Your task to perform on an android device: toggle data saver in the chrome app Image 0: 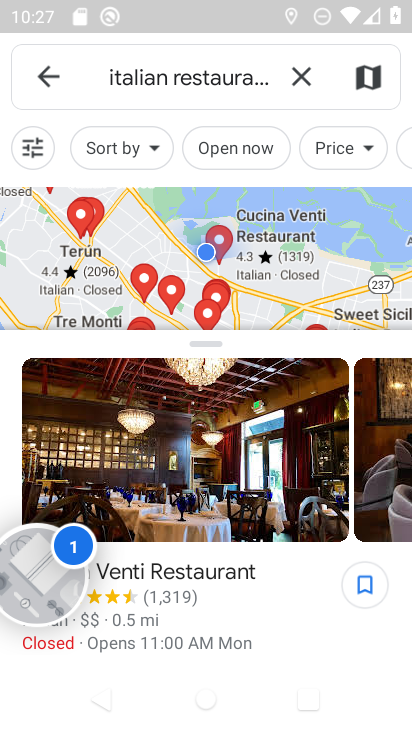
Step 0: press home button
Your task to perform on an android device: toggle data saver in the chrome app Image 1: 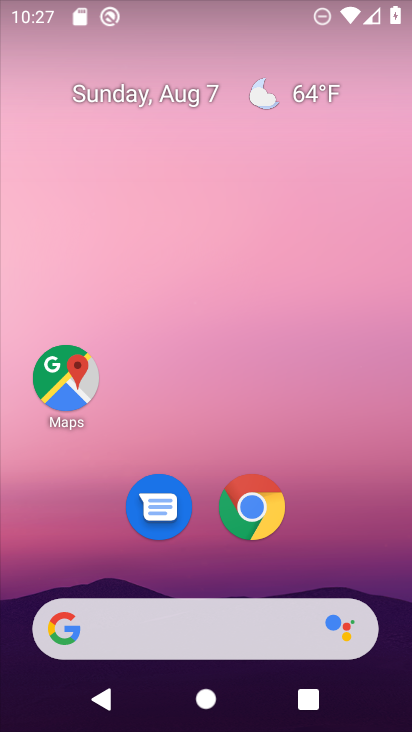
Step 1: drag from (358, 509) to (314, 14)
Your task to perform on an android device: toggle data saver in the chrome app Image 2: 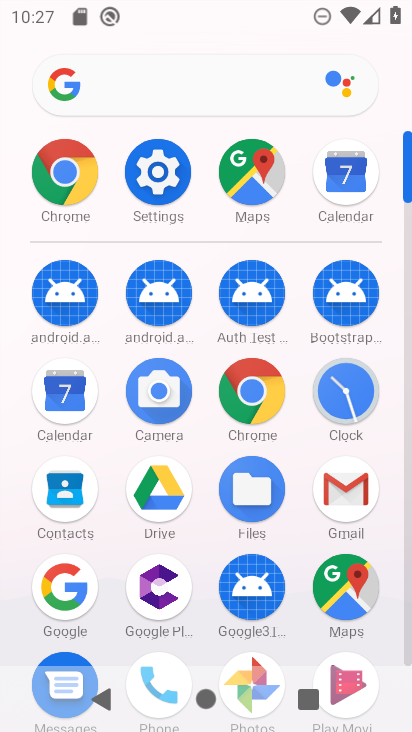
Step 2: click (250, 390)
Your task to perform on an android device: toggle data saver in the chrome app Image 3: 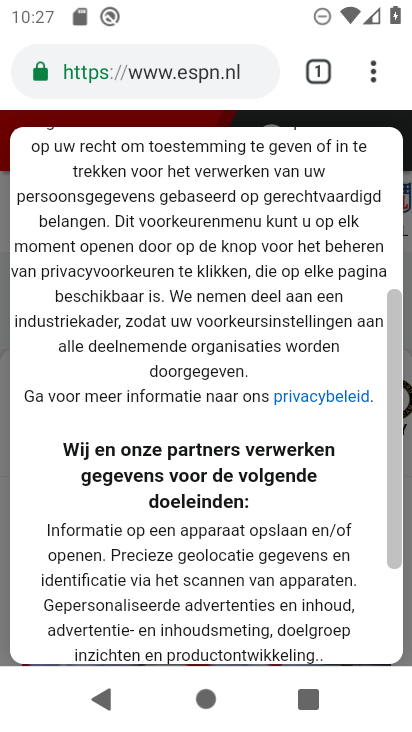
Step 3: drag from (379, 63) to (258, 496)
Your task to perform on an android device: toggle data saver in the chrome app Image 4: 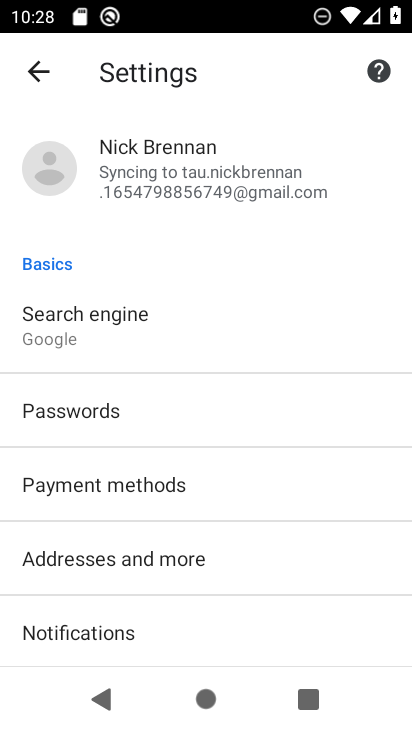
Step 4: drag from (244, 505) to (286, 82)
Your task to perform on an android device: toggle data saver in the chrome app Image 5: 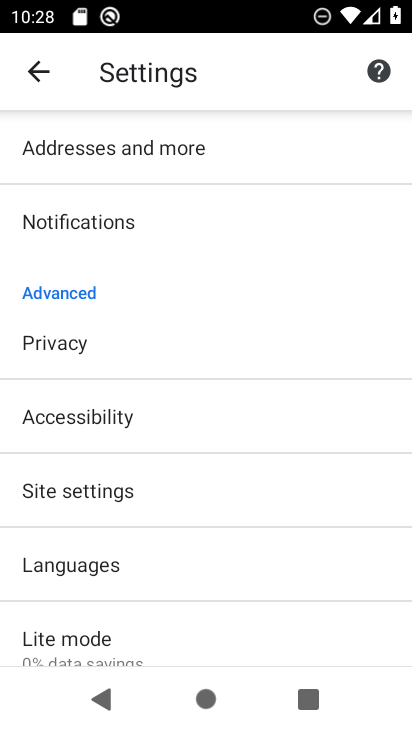
Step 5: drag from (185, 560) to (294, 123)
Your task to perform on an android device: toggle data saver in the chrome app Image 6: 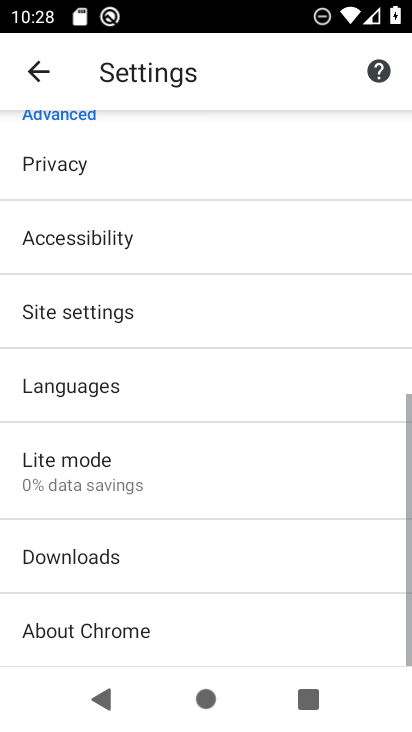
Step 6: click (119, 467)
Your task to perform on an android device: toggle data saver in the chrome app Image 7: 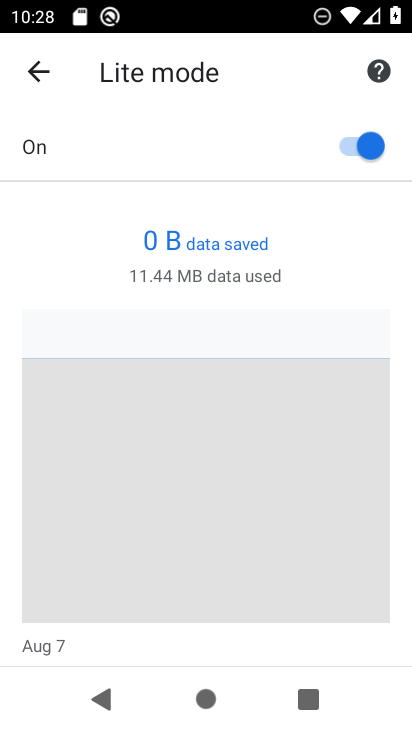
Step 7: click (351, 138)
Your task to perform on an android device: toggle data saver in the chrome app Image 8: 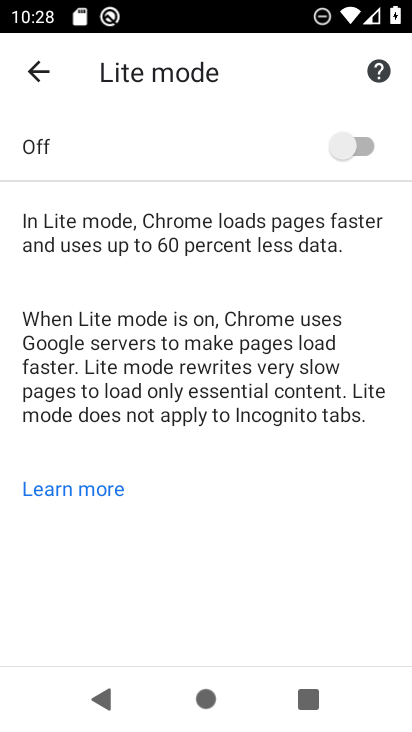
Step 8: task complete